Your task to perform on an android device: choose inbox layout in the gmail app Image 0: 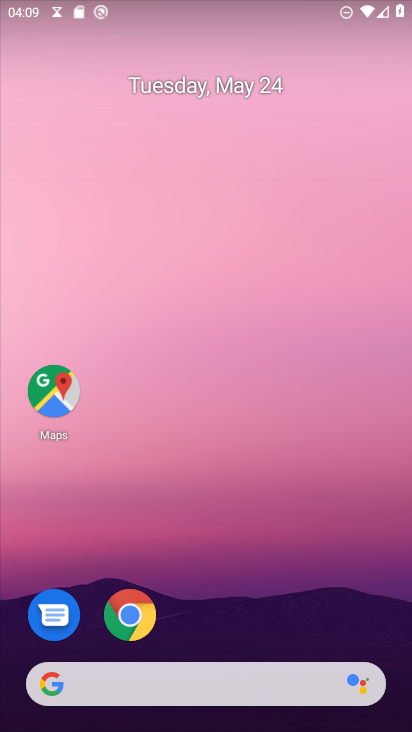
Step 0: drag from (293, 553) to (185, 21)
Your task to perform on an android device: choose inbox layout in the gmail app Image 1: 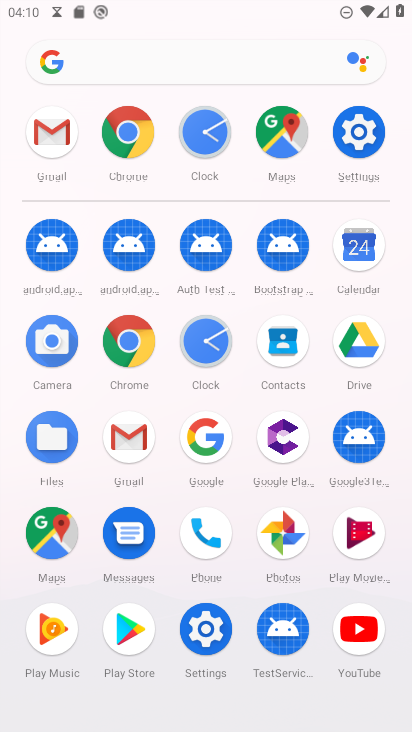
Step 1: drag from (11, 586) to (26, 297)
Your task to perform on an android device: choose inbox layout in the gmail app Image 2: 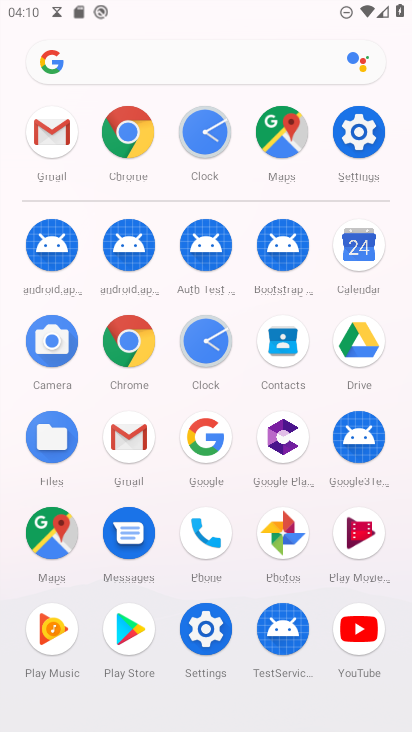
Step 2: click (127, 428)
Your task to perform on an android device: choose inbox layout in the gmail app Image 3: 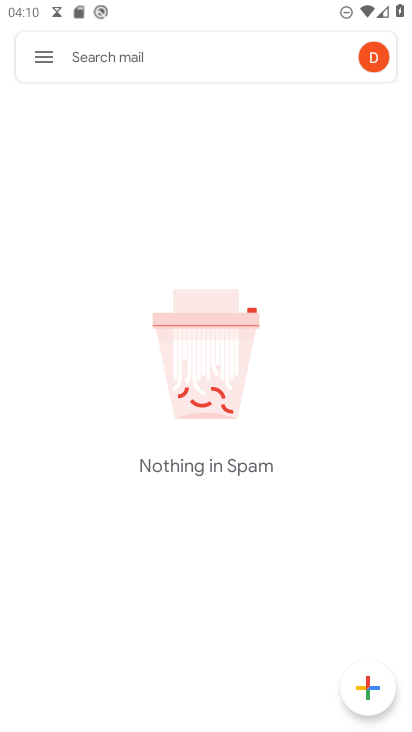
Step 3: click (30, 53)
Your task to perform on an android device: choose inbox layout in the gmail app Image 4: 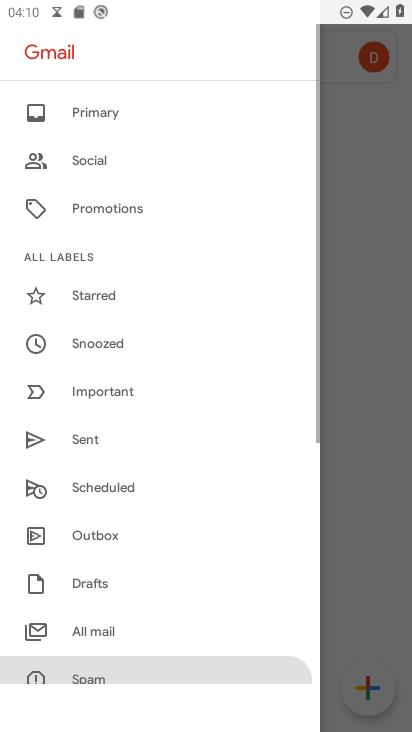
Step 4: drag from (133, 593) to (190, 114)
Your task to perform on an android device: choose inbox layout in the gmail app Image 5: 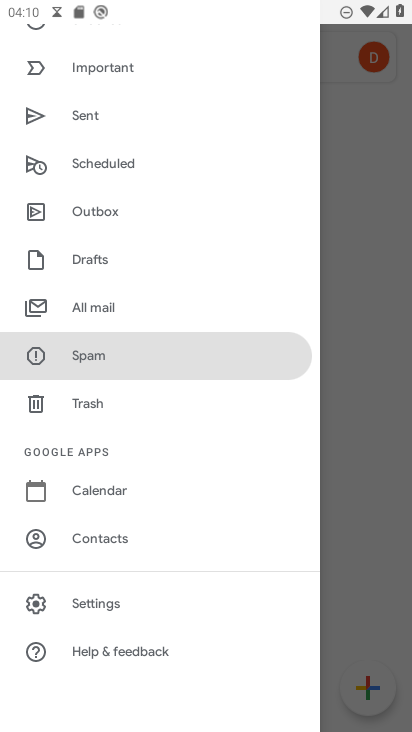
Step 5: click (79, 603)
Your task to perform on an android device: choose inbox layout in the gmail app Image 6: 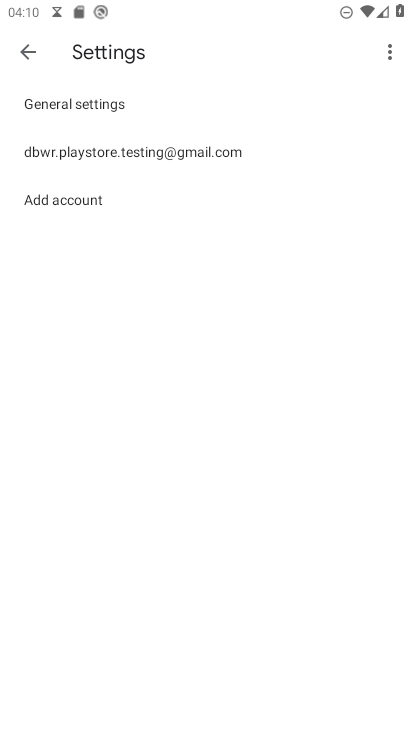
Step 6: click (169, 147)
Your task to perform on an android device: choose inbox layout in the gmail app Image 7: 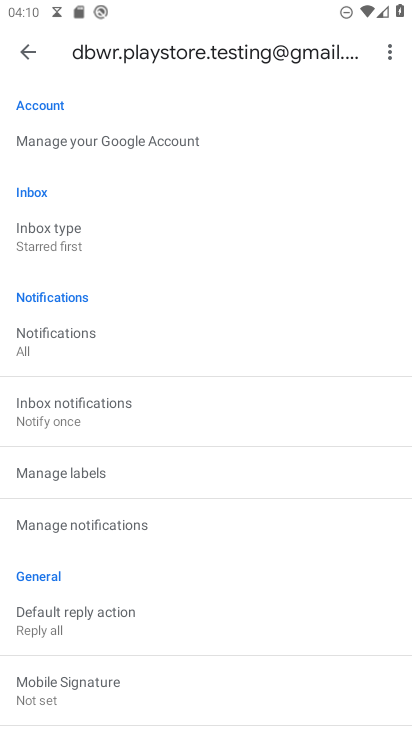
Step 7: click (92, 235)
Your task to perform on an android device: choose inbox layout in the gmail app Image 8: 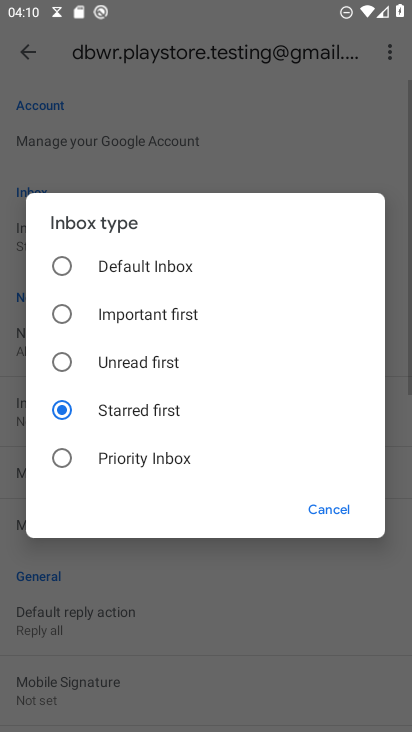
Step 8: click (112, 251)
Your task to perform on an android device: choose inbox layout in the gmail app Image 9: 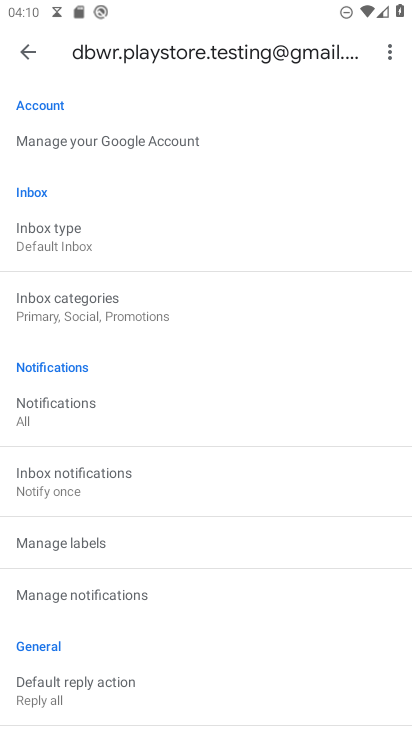
Step 9: task complete